Your task to perform on an android device: Show me popular games on the Play Store Image 0: 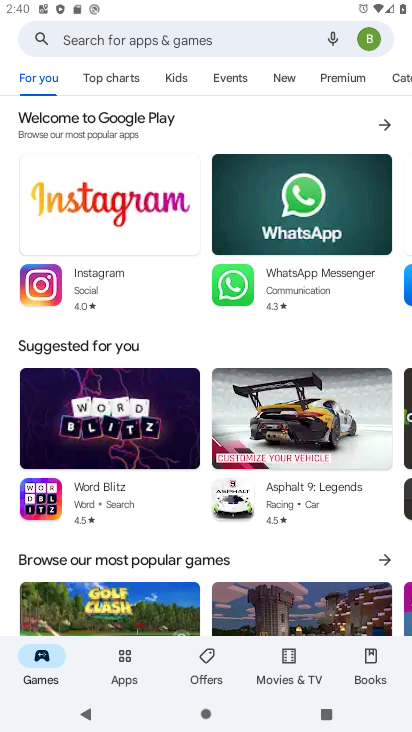
Step 0: click (134, 77)
Your task to perform on an android device: Show me popular games on the Play Store Image 1: 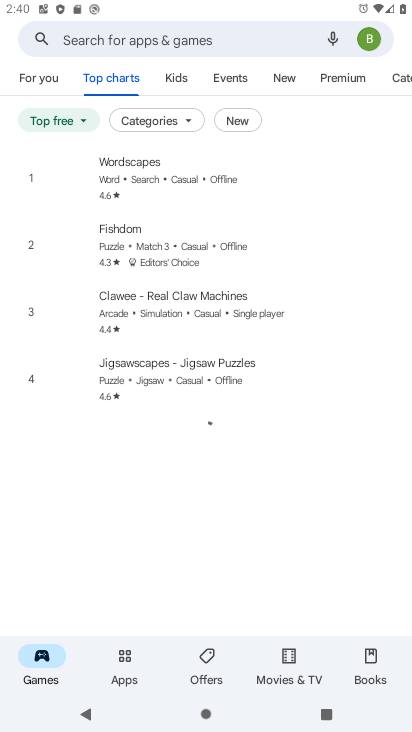
Step 1: task complete